Your task to perform on an android device: Is it going to rain today? Image 0: 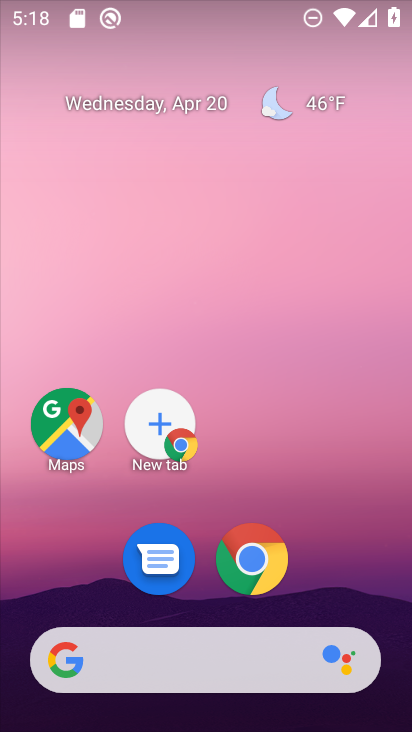
Step 0: click (227, 638)
Your task to perform on an android device: Is it going to rain today? Image 1: 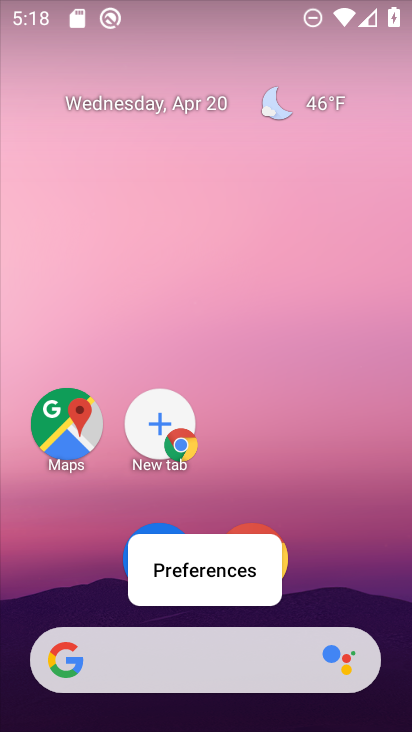
Step 1: click (171, 650)
Your task to perform on an android device: Is it going to rain today? Image 2: 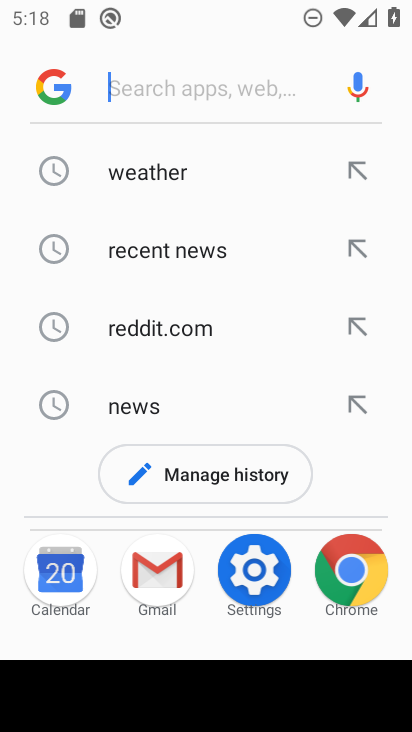
Step 2: click (176, 160)
Your task to perform on an android device: Is it going to rain today? Image 3: 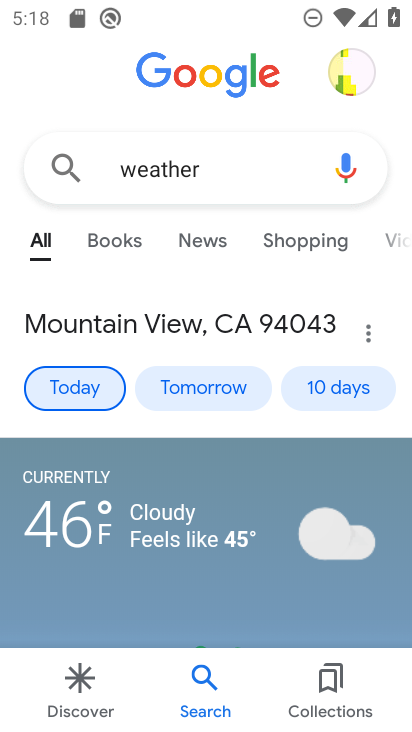
Step 3: task complete